Your task to perform on an android device: Open maps Image 0: 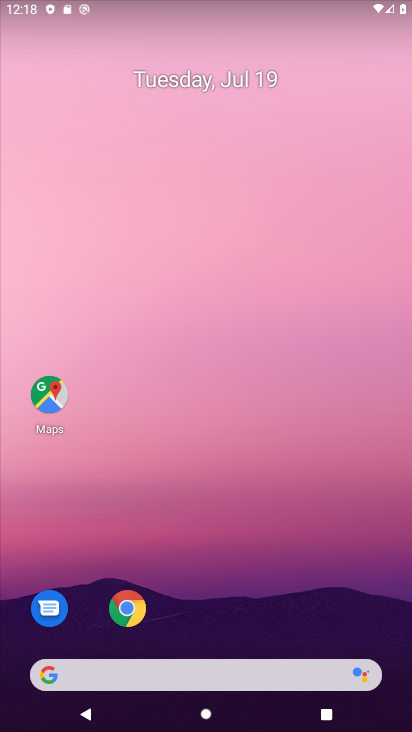
Step 0: click (47, 394)
Your task to perform on an android device: Open maps Image 1: 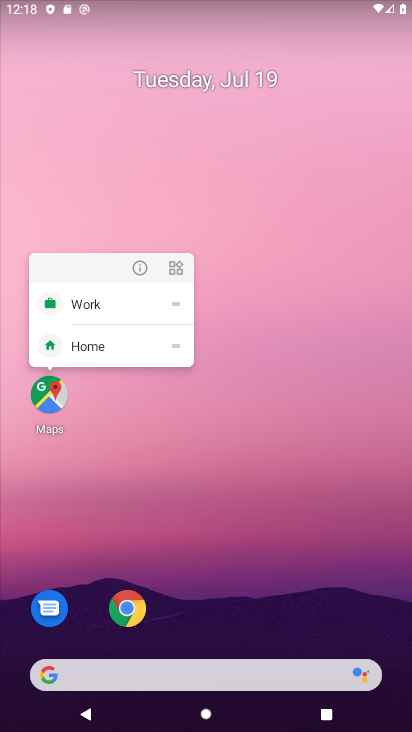
Step 1: click (47, 394)
Your task to perform on an android device: Open maps Image 2: 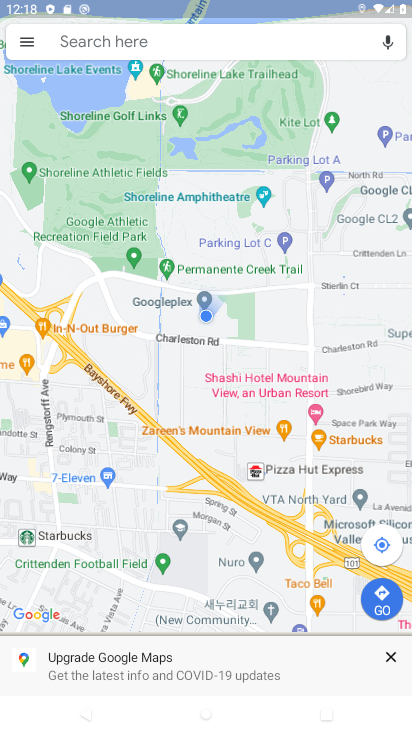
Step 2: task complete